Your task to perform on an android device: turn vacation reply on in the gmail app Image 0: 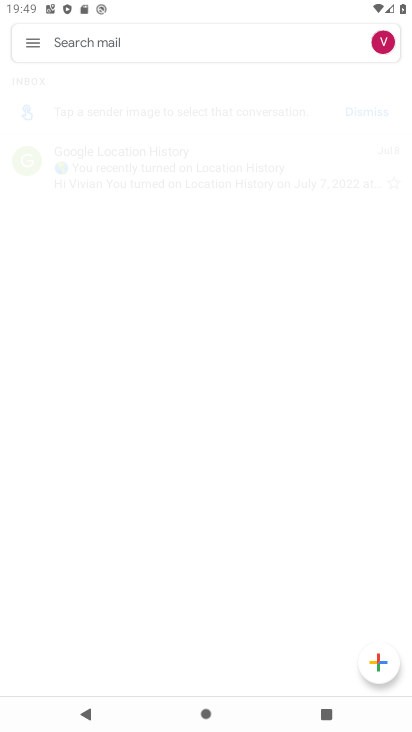
Step 0: click (119, 624)
Your task to perform on an android device: turn vacation reply on in the gmail app Image 1: 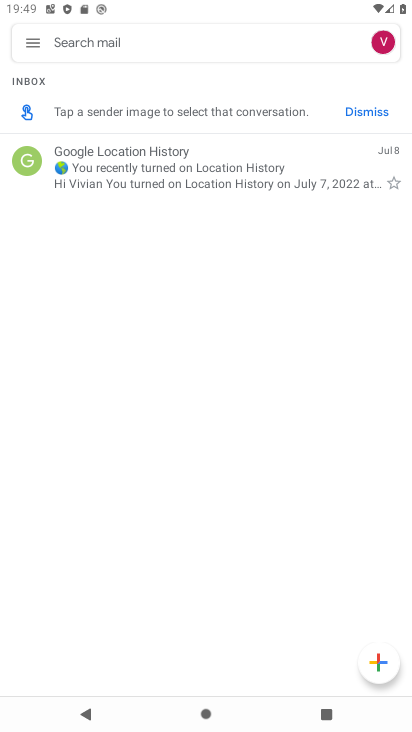
Step 1: click (31, 57)
Your task to perform on an android device: turn vacation reply on in the gmail app Image 2: 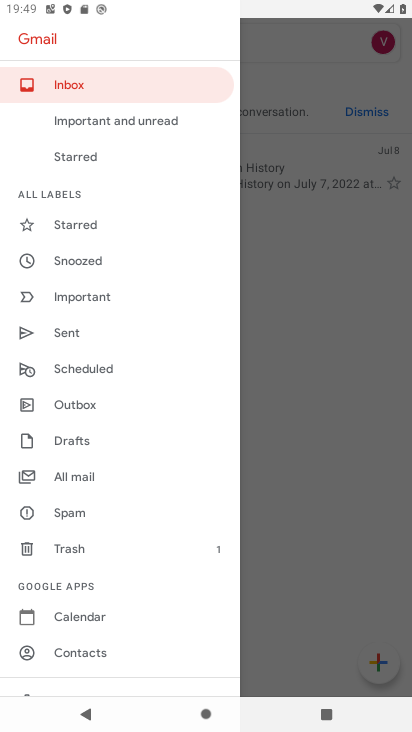
Step 2: drag from (120, 636) to (132, 275)
Your task to perform on an android device: turn vacation reply on in the gmail app Image 3: 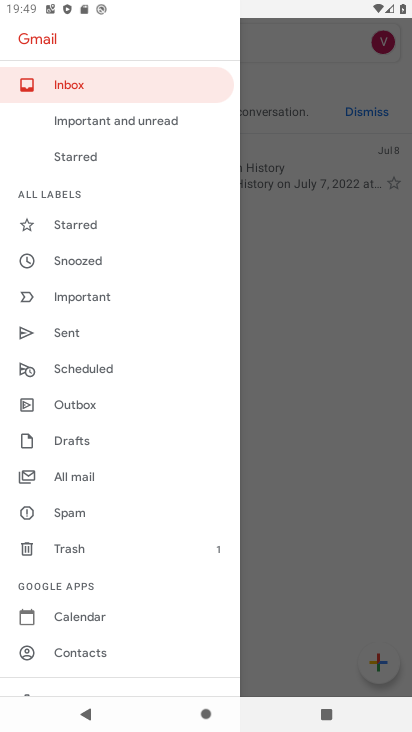
Step 3: drag from (94, 639) to (81, 164)
Your task to perform on an android device: turn vacation reply on in the gmail app Image 4: 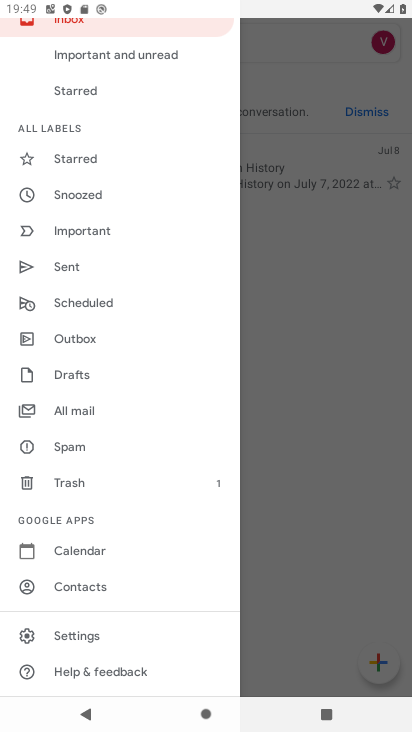
Step 4: click (133, 643)
Your task to perform on an android device: turn vacation reply on in the gmail app Image 5: 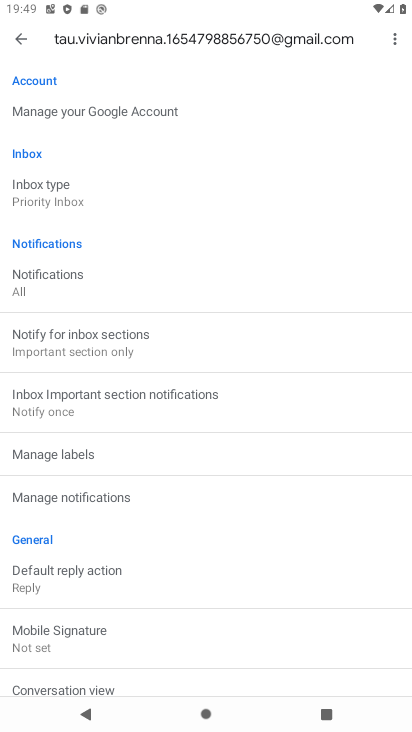
Step 5: drag from (147, 633) to (146, 475)
Your task to perform on an android device: turn vacation reply on in the gmail app Image 6: 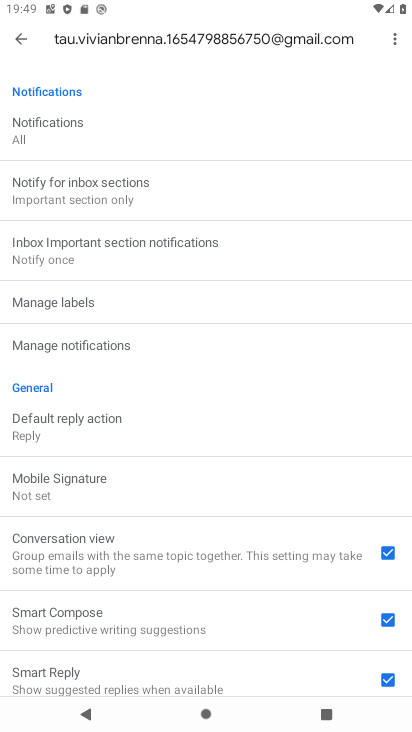
Step 6: drag from (218, 627) to (207, 480)
Your task to perform on an android device: turn vacation reply on in the gmail app Image 7: 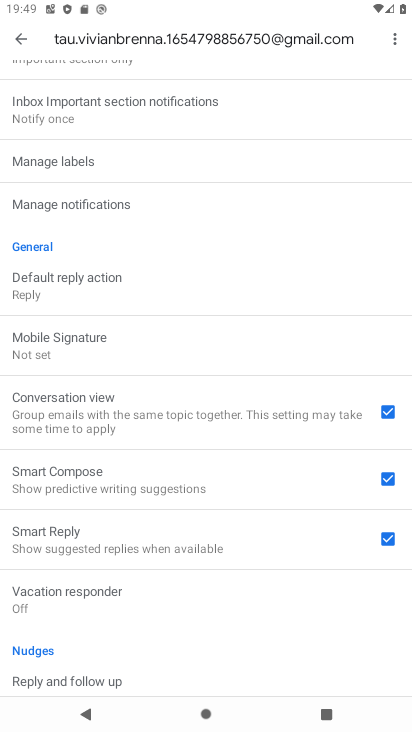
Step 7: click (177, 604)
Your task to perform on an android device: turn vacation reply on in the gmail app Image 8: 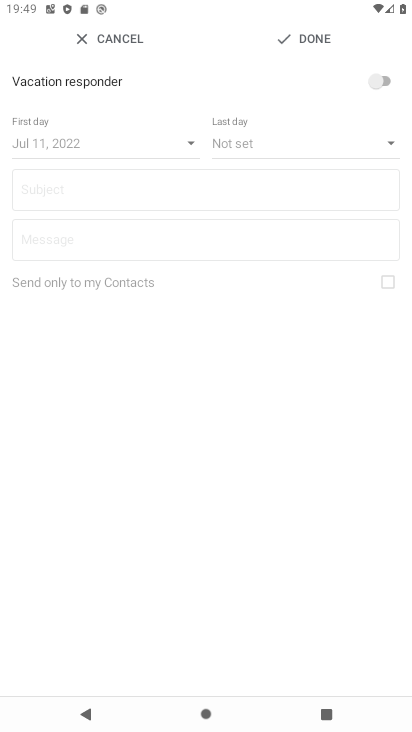
Step 8: click (361, 80)
Your task to perform on an android device: turn vacation reply on in the gmail app Image 9: 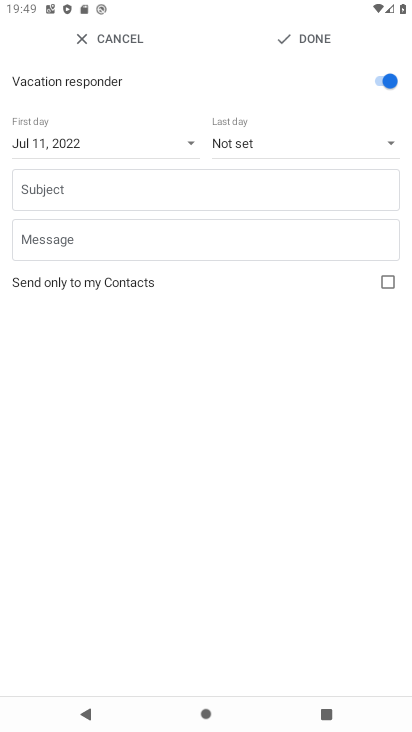
Step 9: task complete